Your task to perform on an android device: Open internet settings Image 0: 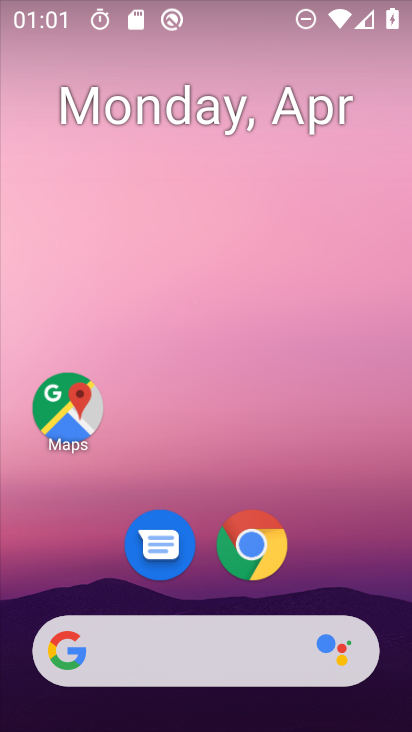
Step 0: drag from (360, 508) to (360, 219)
Your task to perform on an android device: Open internet settings Image 1: 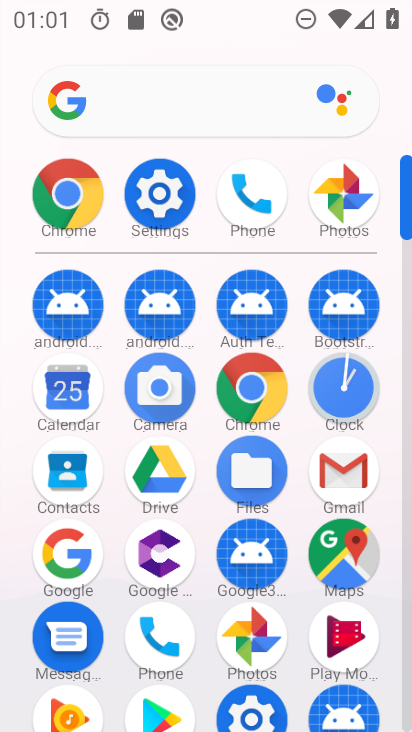
Step 1: click (170, 195)
Your task to perform on an android device: Open internet settings Image 2: 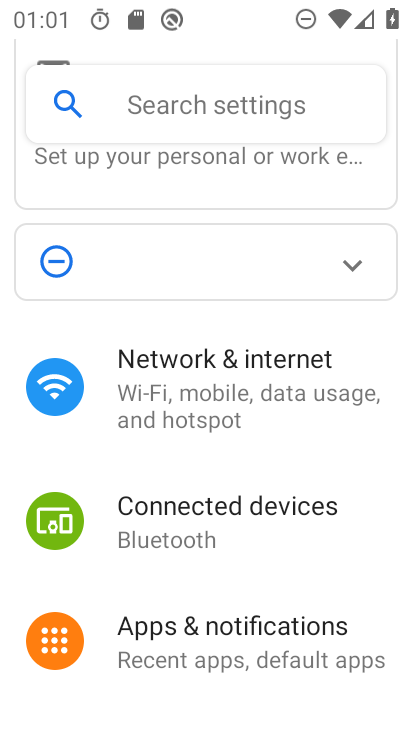
Step 2: click (259, 396)
Your task to perform on an android device: Open internet settings Image 3: 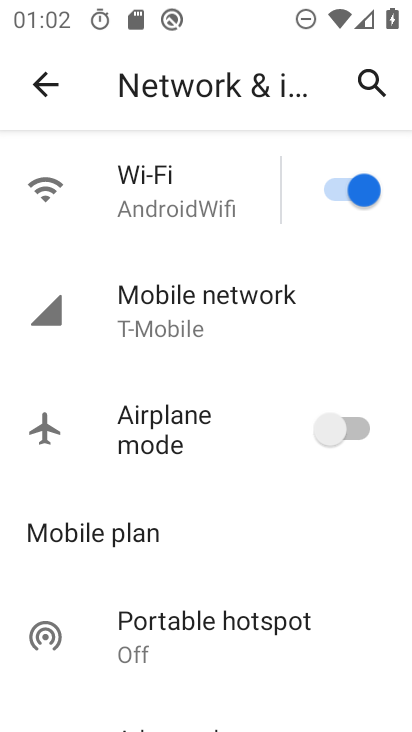
Step 3: task complete